Your task to perform on an android device: Open Google Chrome and click the shortcut for Amazon.com Image 0: 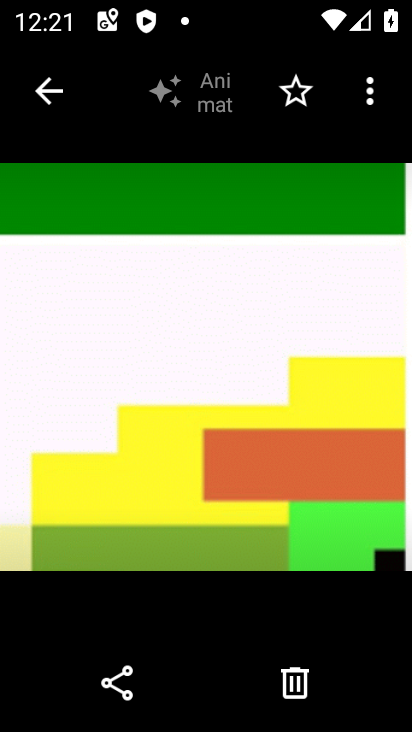
Step 0: press home button
Your task to perform on an android device: Open Google Chrome and click the shortcut for Amazon.com Image 1: 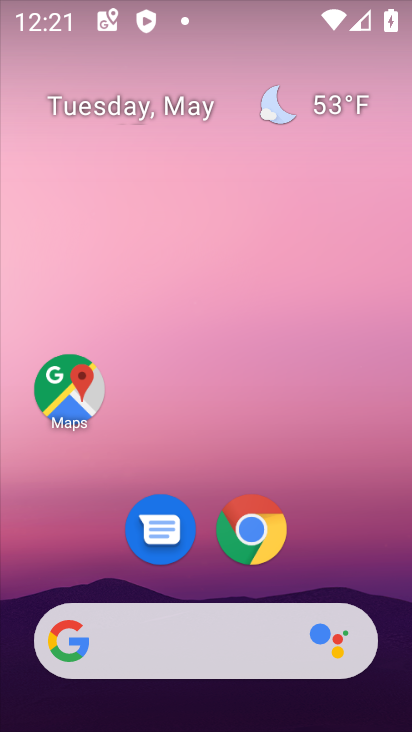
Step 1: click (246, 530)
Your task to perform on an android device: Open Google Chrome and click the shortcut for Amazon.com Image 2: 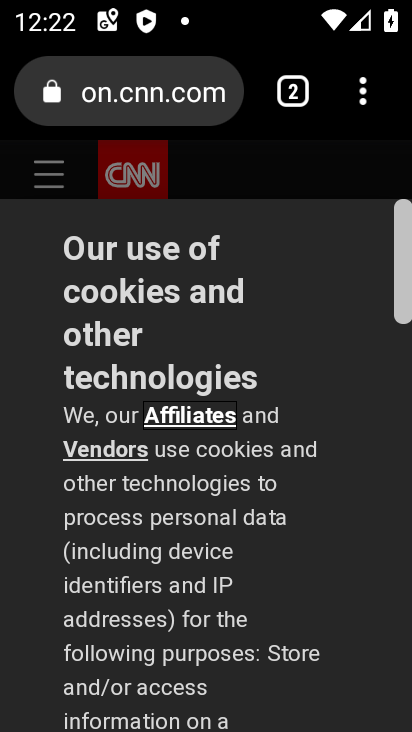
Step 2: click (363, 102)
Your task to perform on an android device: Open Google Chrome and click the shortcut for Amazon.com Image 3: 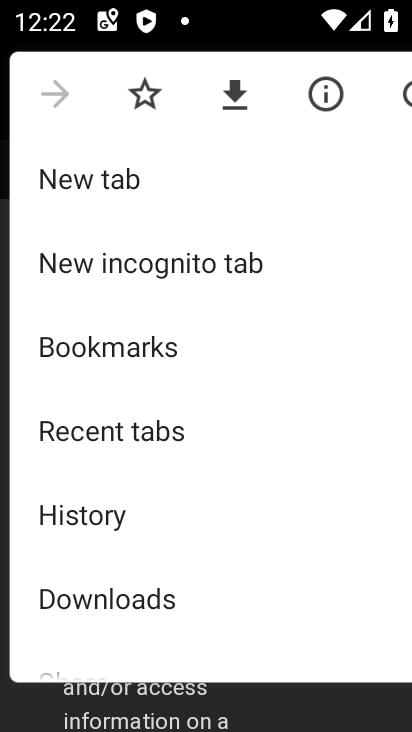
Step 3: click (92, 190)
Your task to perform on an android device: Open Google Chrome and click the shortcut for Amazon.com Image 4: 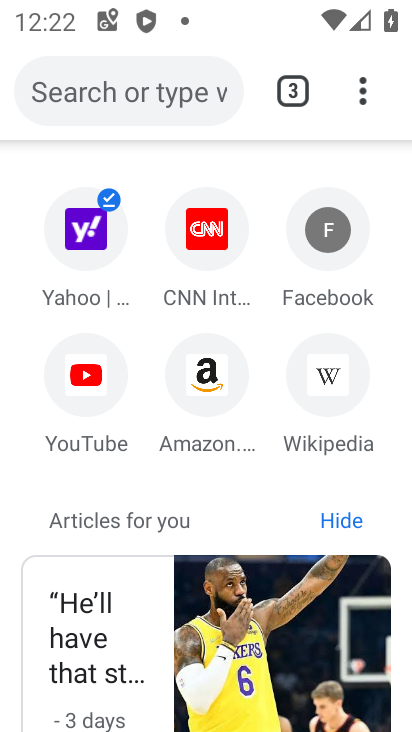
Step 4: click (202, 378)
Your task to perform on an android device: Open Google Chrome and click the shortcut for Amazon.com Image 5: 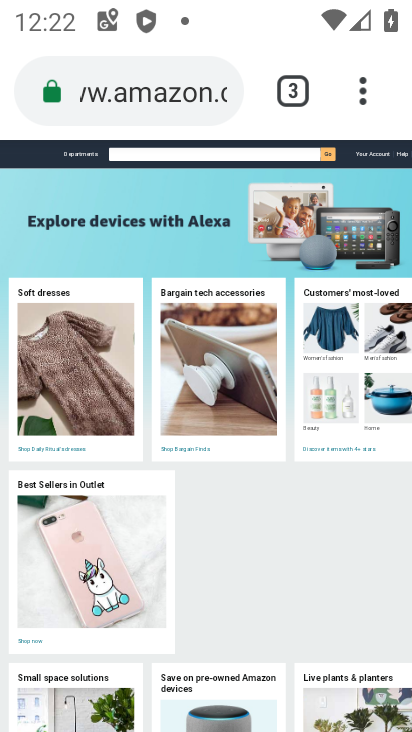
Step 5: task complete